Your task to perform on an android device: uninstall "Cash App" Image 0: 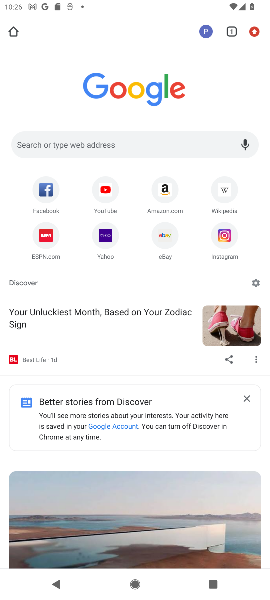
Step 0: task complete